Your task to perform on an android device: Open Reddit.com Image 0: 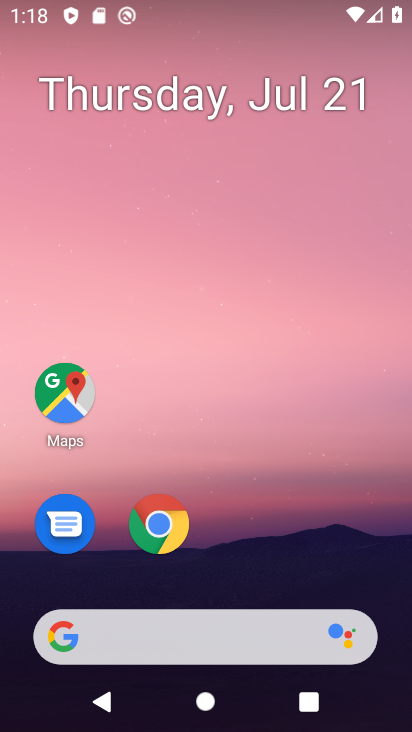
Step 0: click (226, 633)
Your task to perform on an android device: Open Reddit.com Image 1: 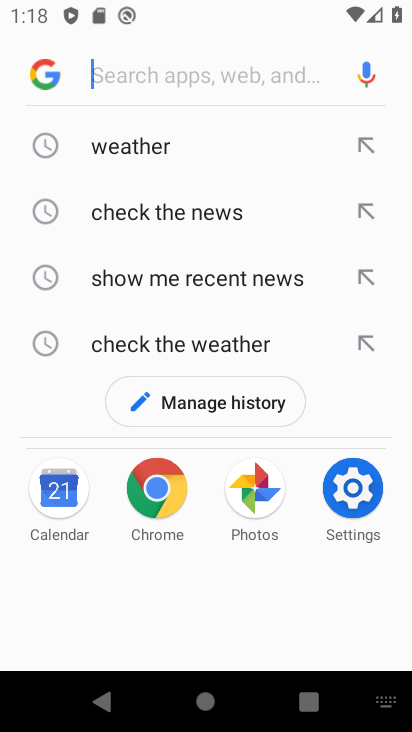
Step 1: type "Reddit.com"
Your task to perform on an android device: Open Reddit.com Image 2: 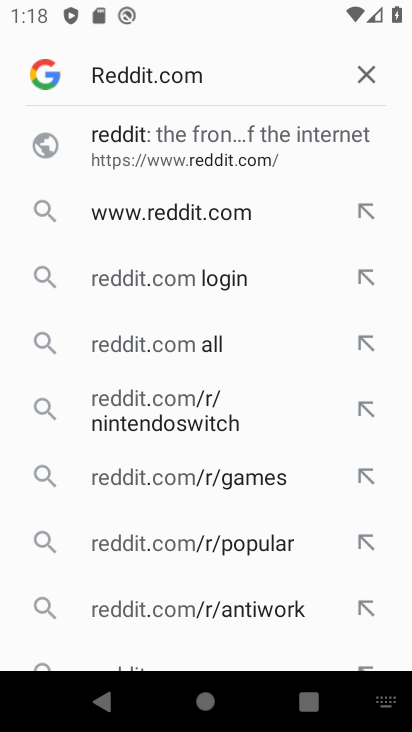
Step 2: click (193, 153)
Your task to perform on an android device: Open Reddit.com Image 3: 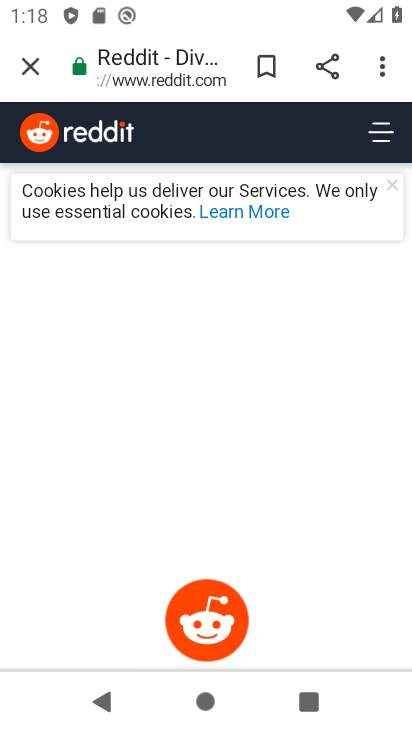
Step 3: task complete